Your task to perform on an android device: Is it going to rain today? Image 0: 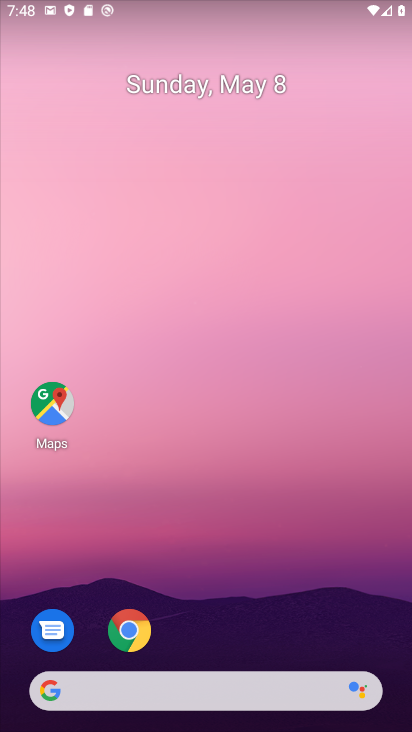
Step 0: click (236, 681)
Your task to perform on an android device: Is it going to rain today? Image 1: 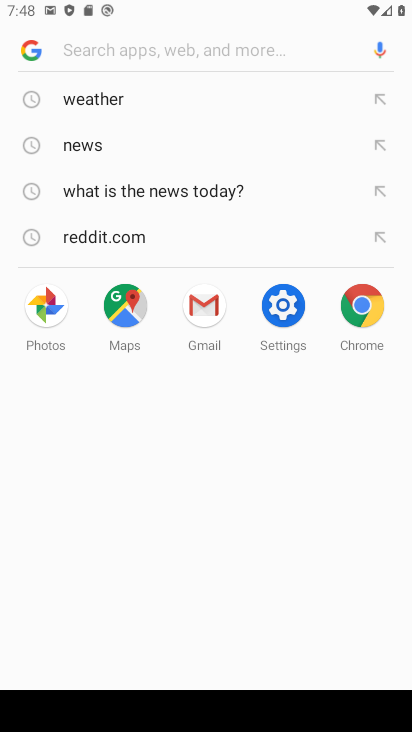
Step 1: click (115, 86)
Your task to perform on an android device: Is it going to rain today? Image 2: 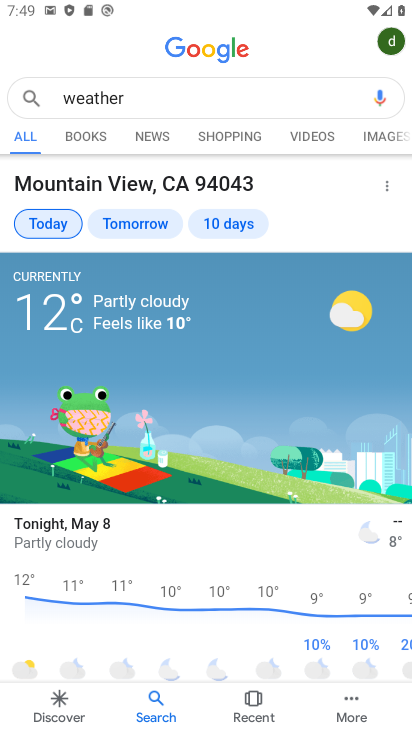
Step 2: task complete